Your task to perform on an android device: open app "Microsoft Excel" Image 0: 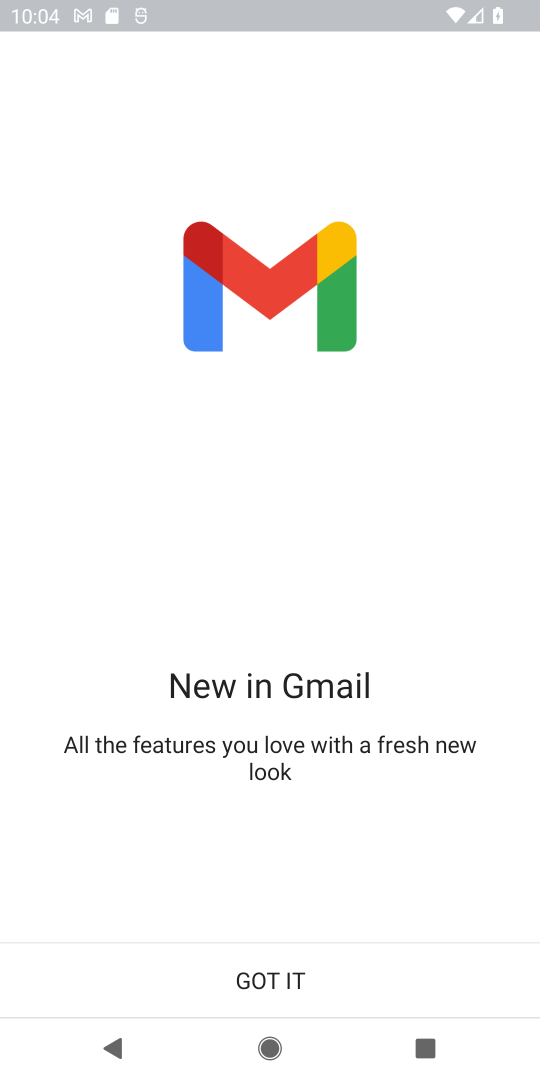
Step 0: press home button
Your task to perform on an android device: open app "Microsoft Excel" Image 1: 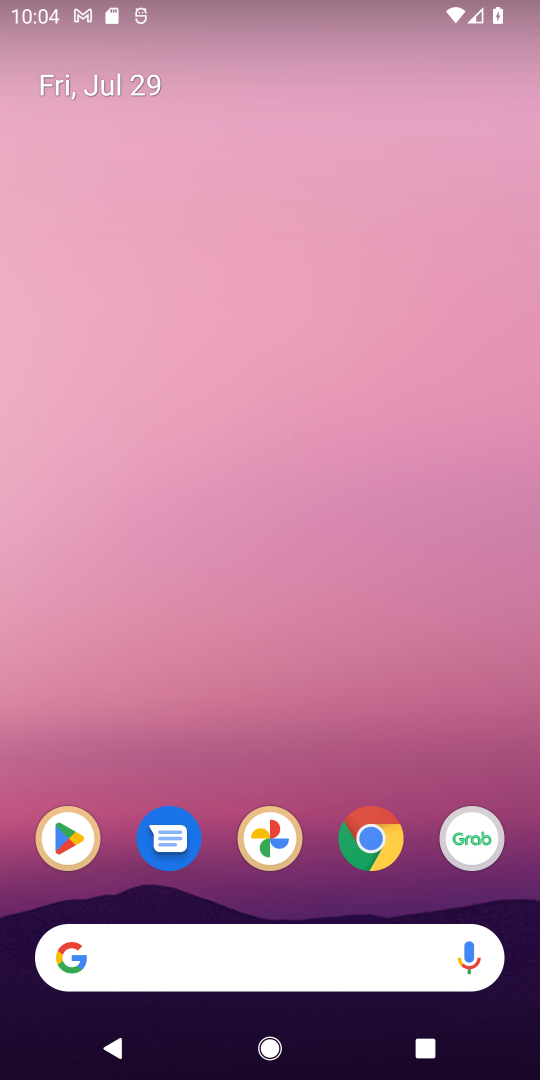
Step 1: click (73, 852)
Your task to perform on an android device: open app "Microsoft Excel" Image 2: 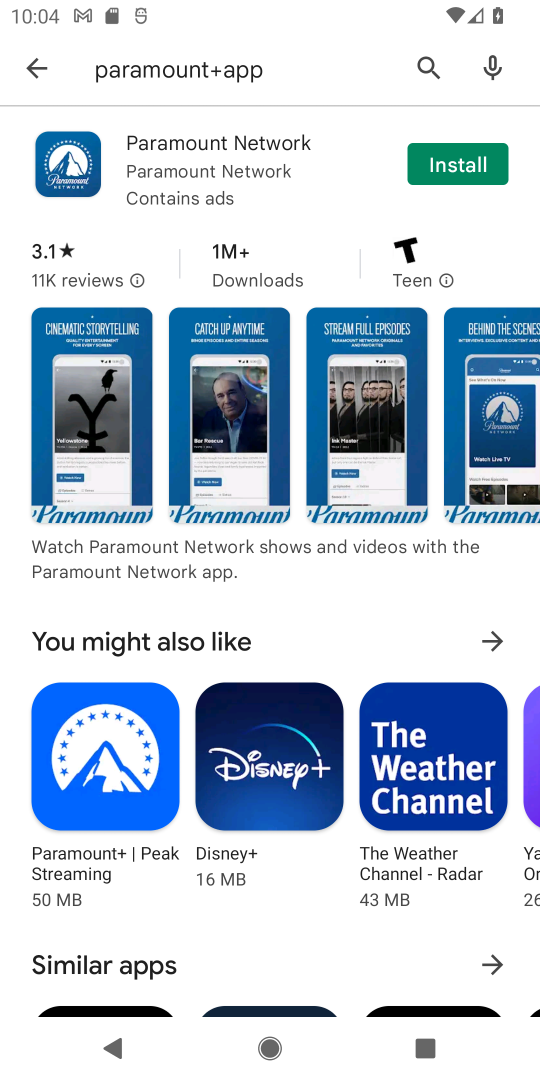
Step 2: click (207, 61)
Your task to perform on an android device: open app "Microsoft Excel" Image 3: 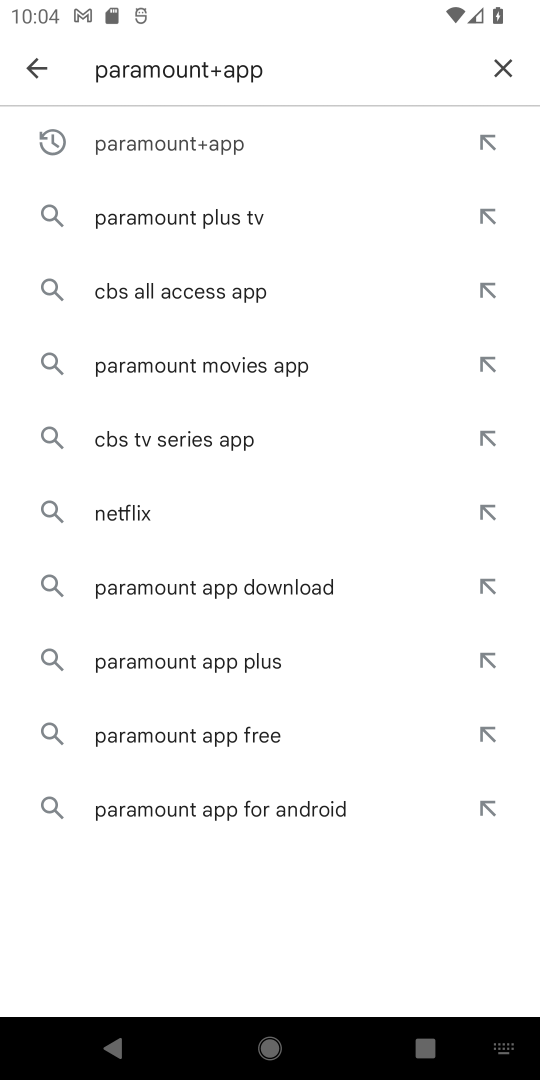
Step 3: click (502, 74)
Your task to perform on an android device: open app "Microsoft Excel" Image 4: 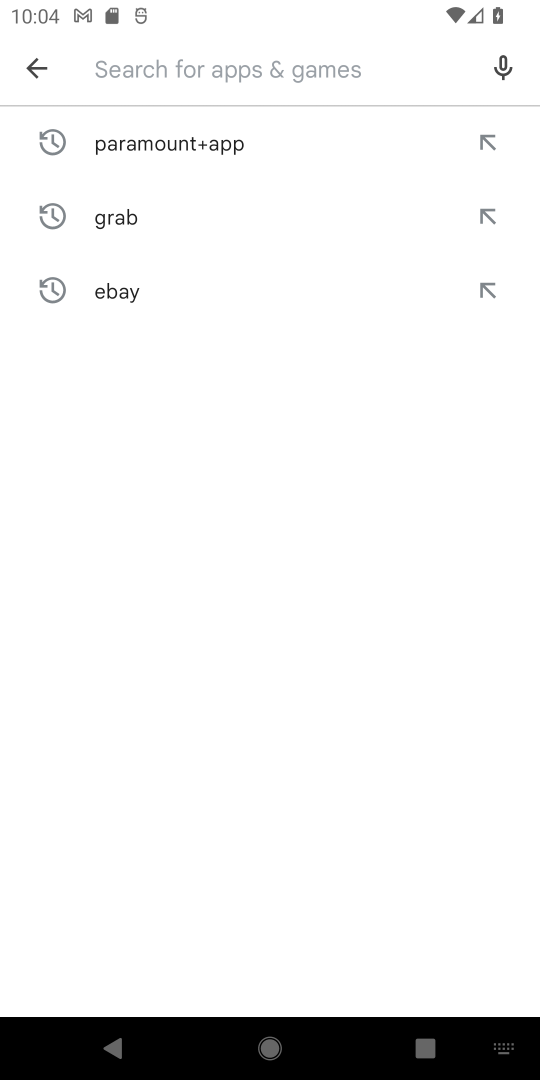
Step 4: type "microsoft Excel"
Your task to perform on an android device: open app "Microsoft Excel" Image 5: 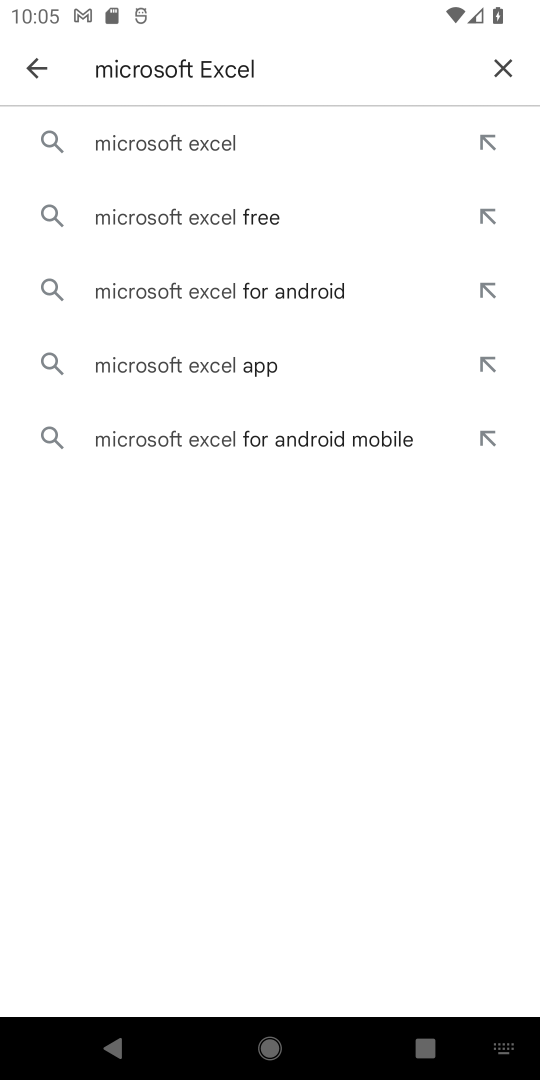
Step 5: click (185, 140)
Your task to perform on an android device: open app "Microsoft Excel" Image 6: 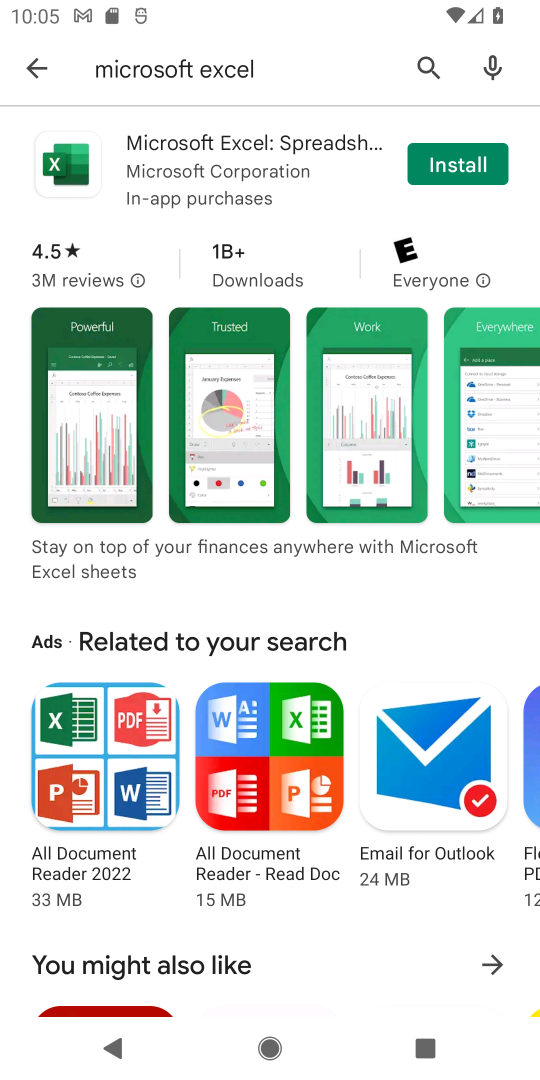
Step 6: task complete